Your task to perform on an android device: Turn off the flashlight Image 0: 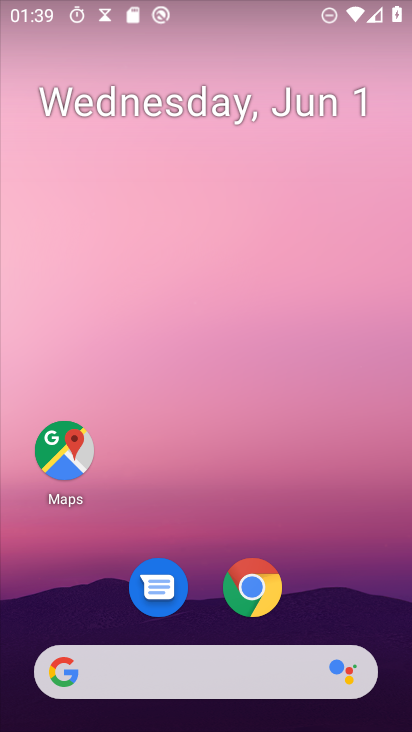
Step 0: drag from (318, 615) to (244, 71)
Your task to perform on an android device: Turn off the flashlight Image 1: 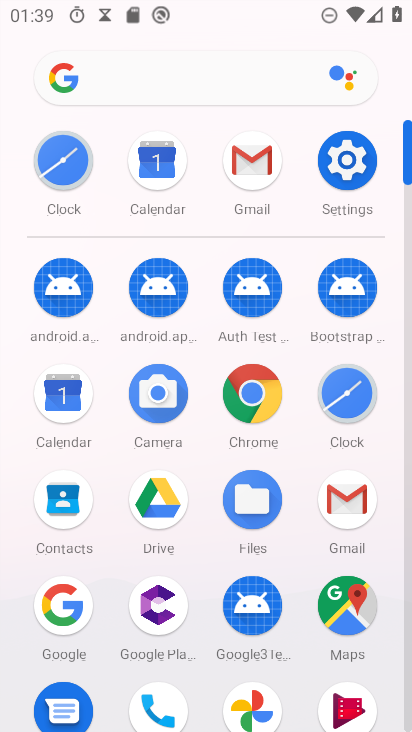
Step 1: click (357, 152)
Your task to perform on an android device: Turn off the flashlight Image 2: 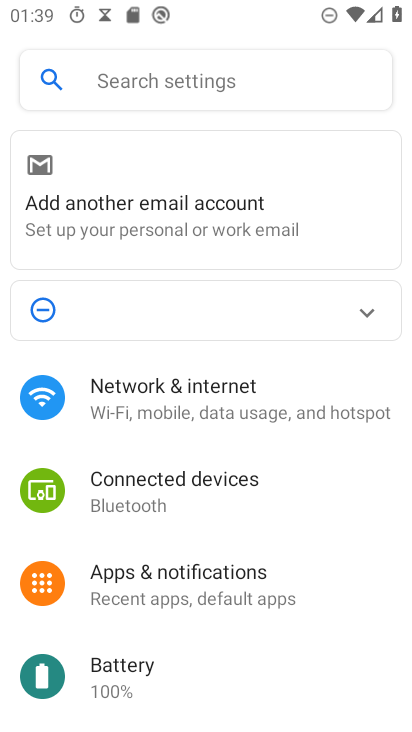
Step 2: task complete